Your task to perform on an android device: uninstall "Microsoft Outlook" Image 0: 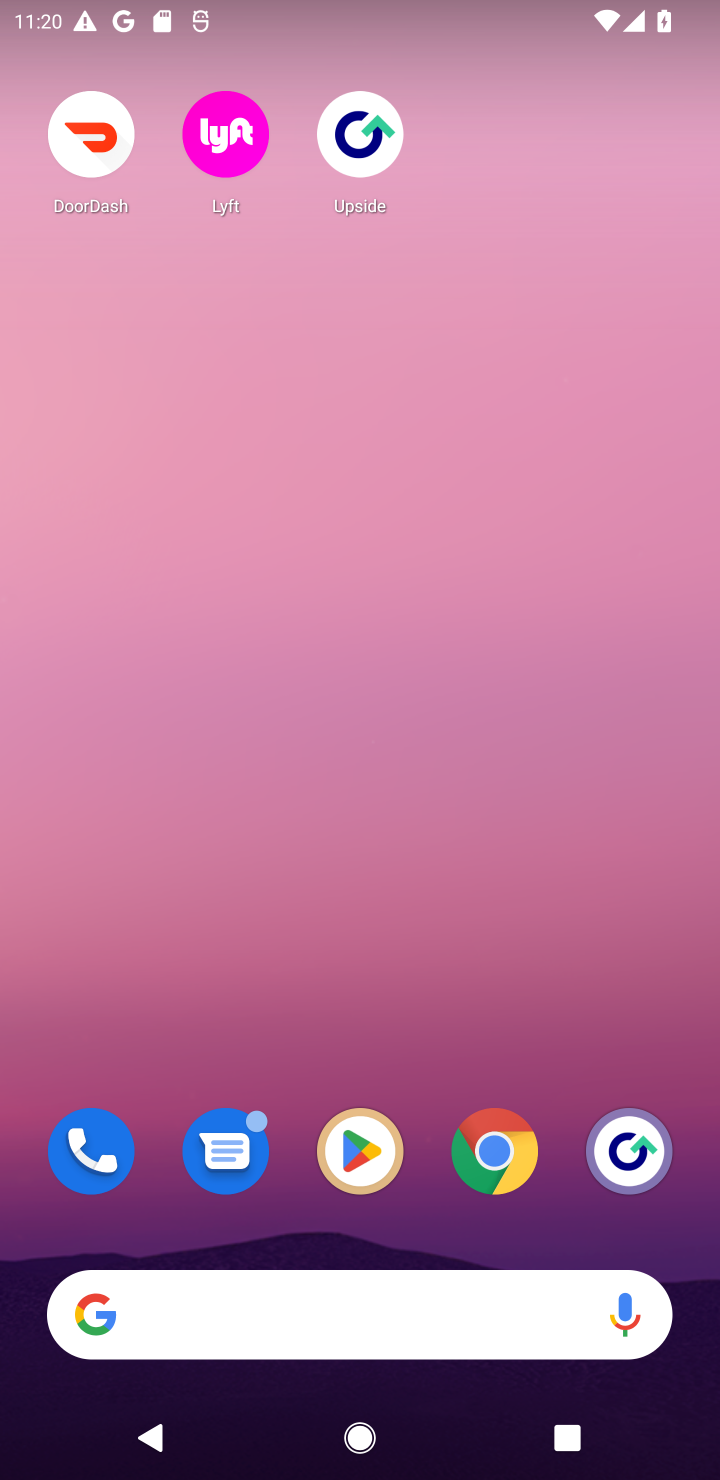
Step 0: click (350, 1159)
Your task to perform on an android device: uninstall "Microsoft Outlook" Image 1: 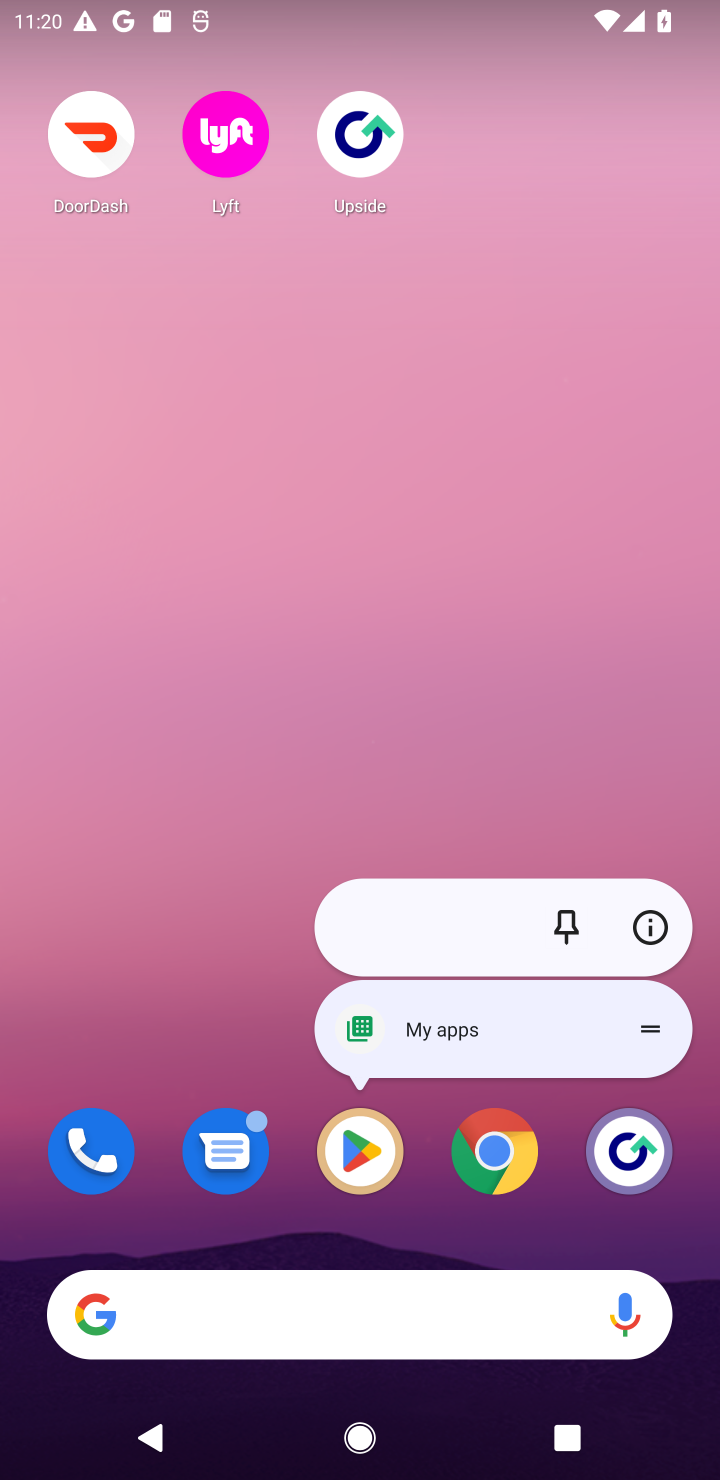
Step 1: click (339, 1152)
Your task to perform on an android device: uninstall "Microsoft Outlook" Image 2: 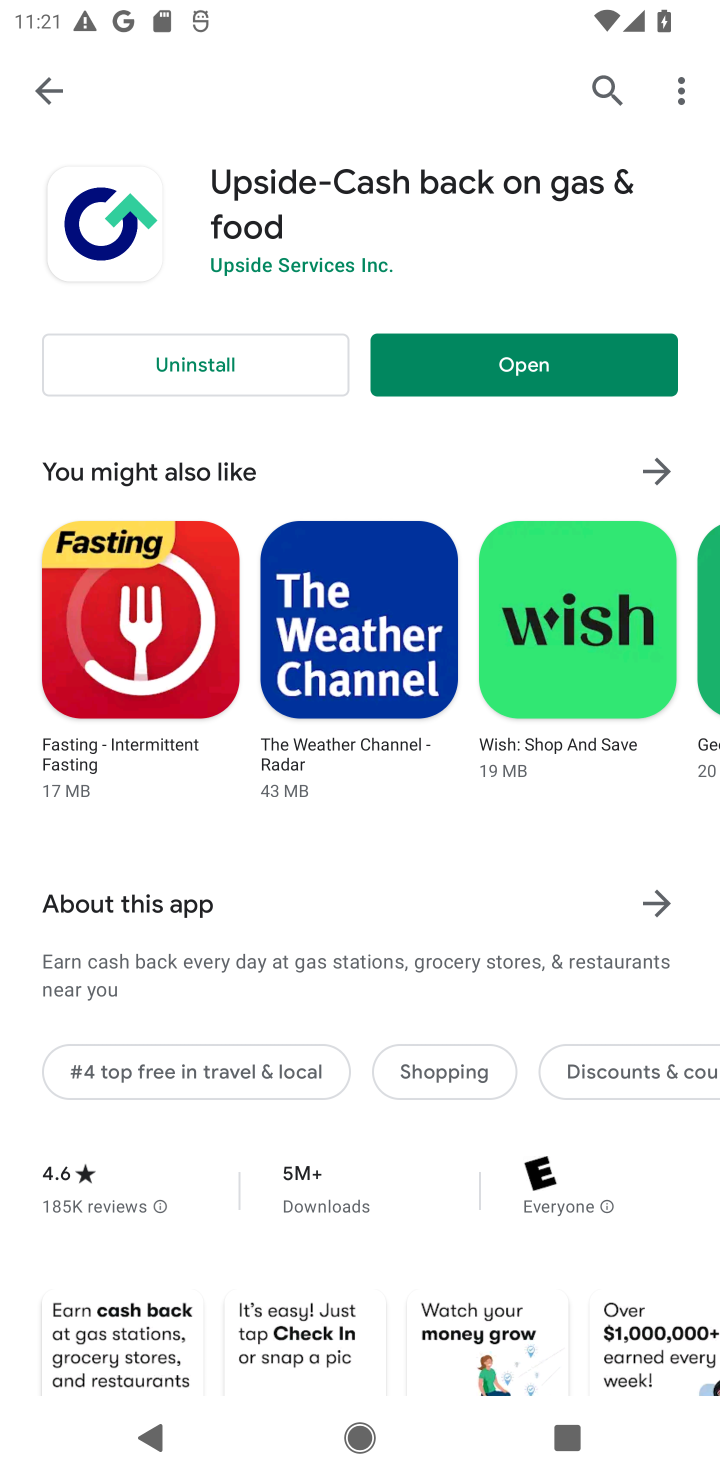
Step 2: click (604, 91)
Your task to perform on an android device: uninstall "Microsoft Outlook" Image 3: 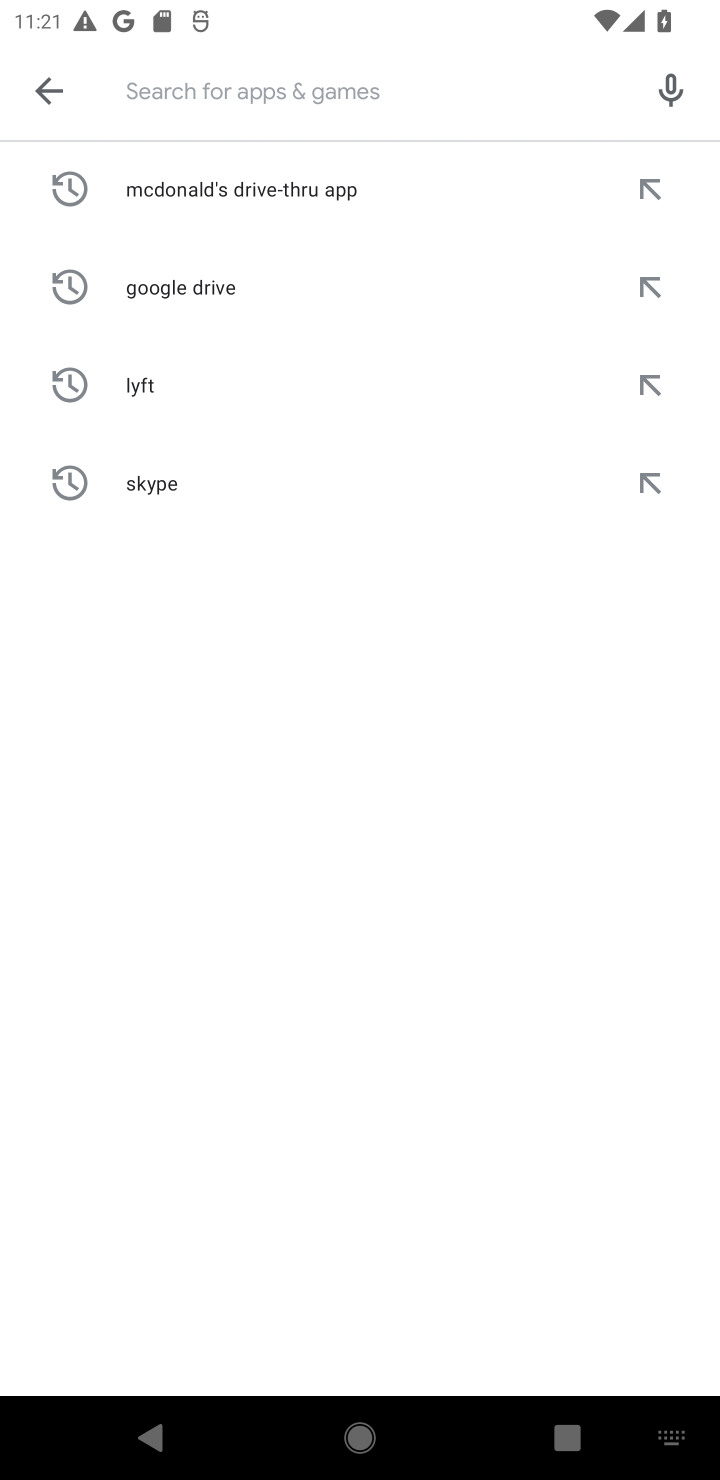
Step 3: type "Microsoft Outlook"
Your task to perform on an android device: uninstall "Microsoft Outlook" Image 4: 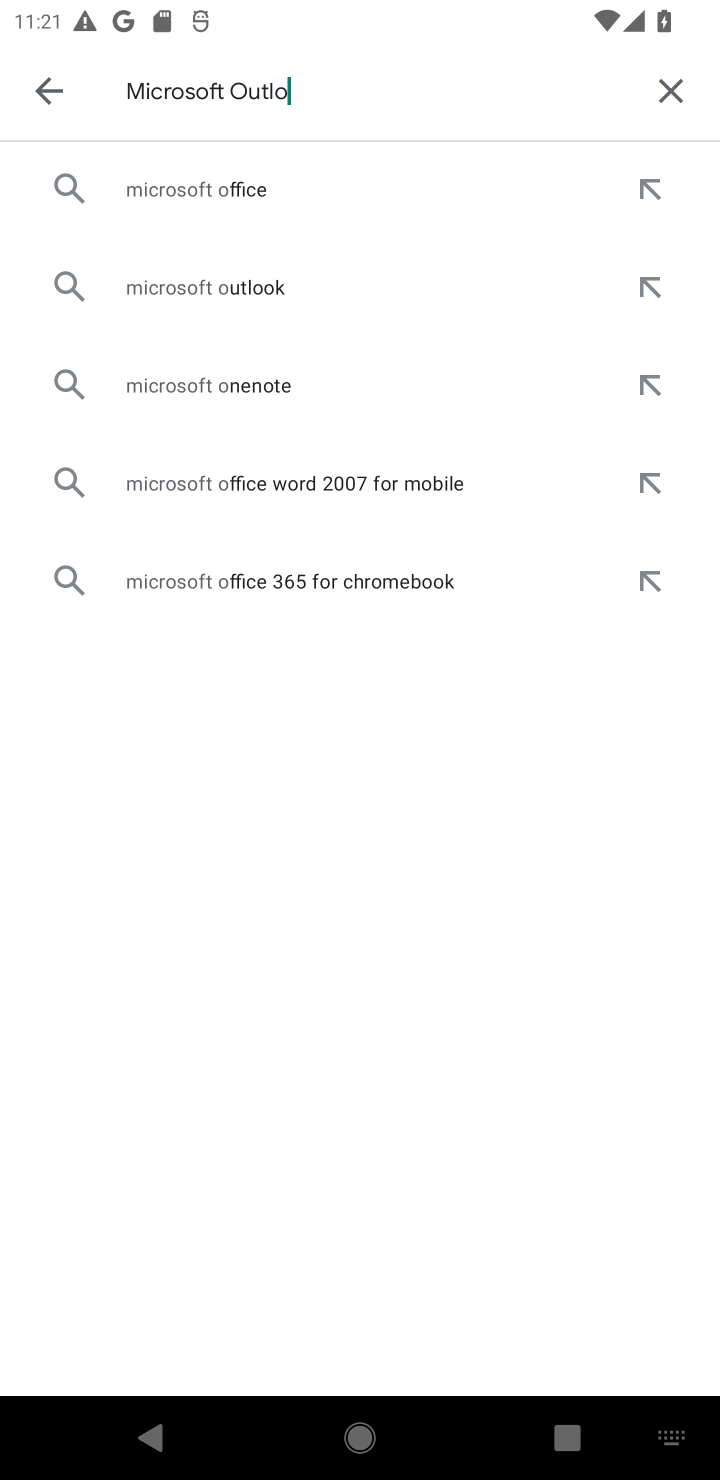
Step 4: type ""
Your task to perform on an android device: uninstall "Microsoft Outlook" Image 5: 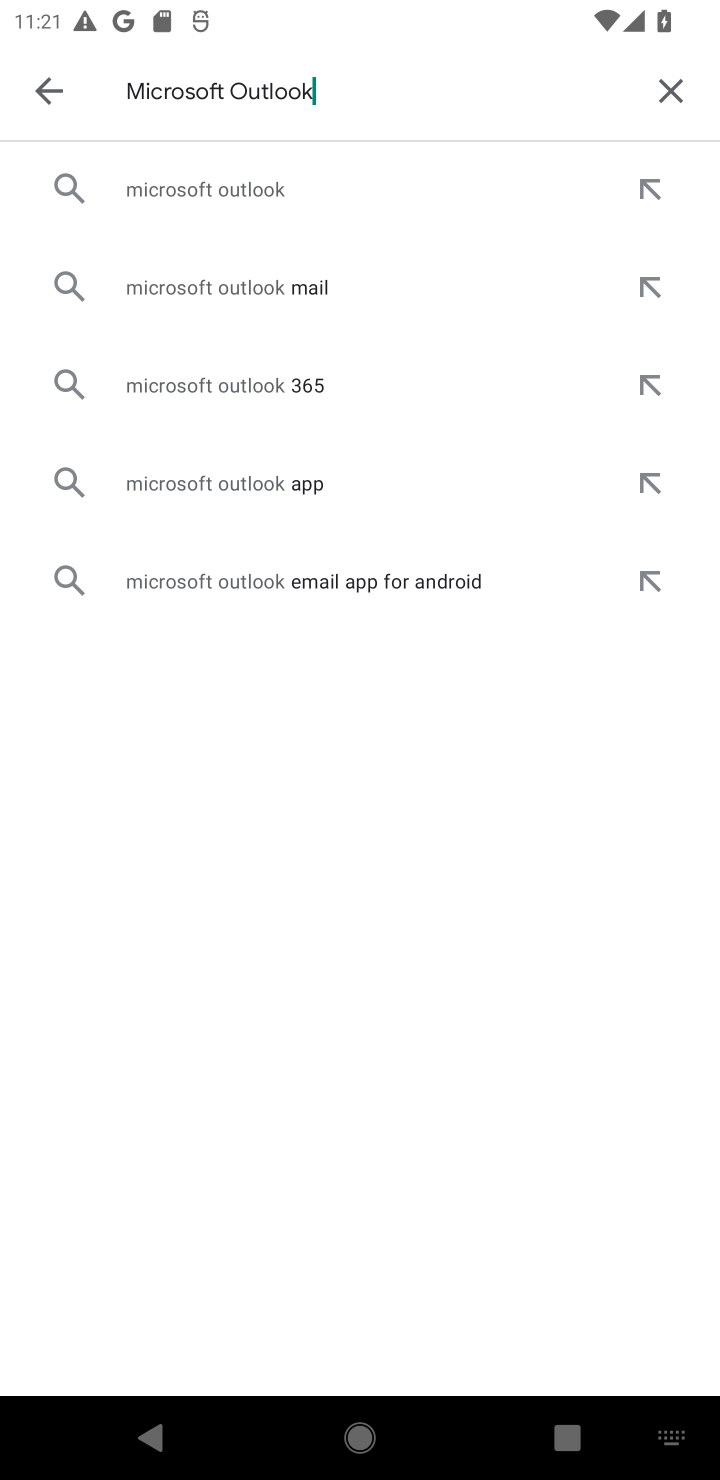
Step 5: click (286, 192)
Your task to perform on an android device: uninstall "Microsoft Outlook" Image 6: 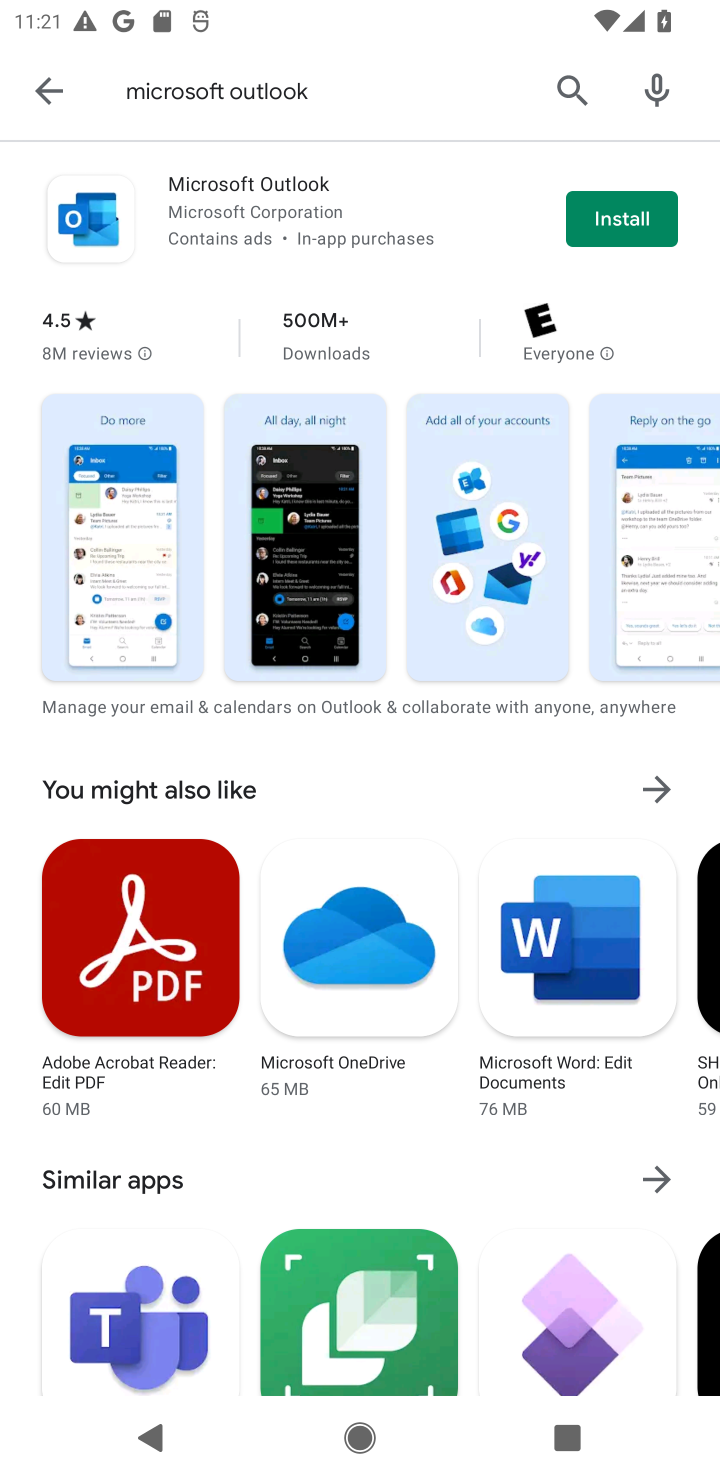
Step 6: click (289, 201)
Your task to perform on an android device: uninstall "Microsoft Outlook" Image 7: 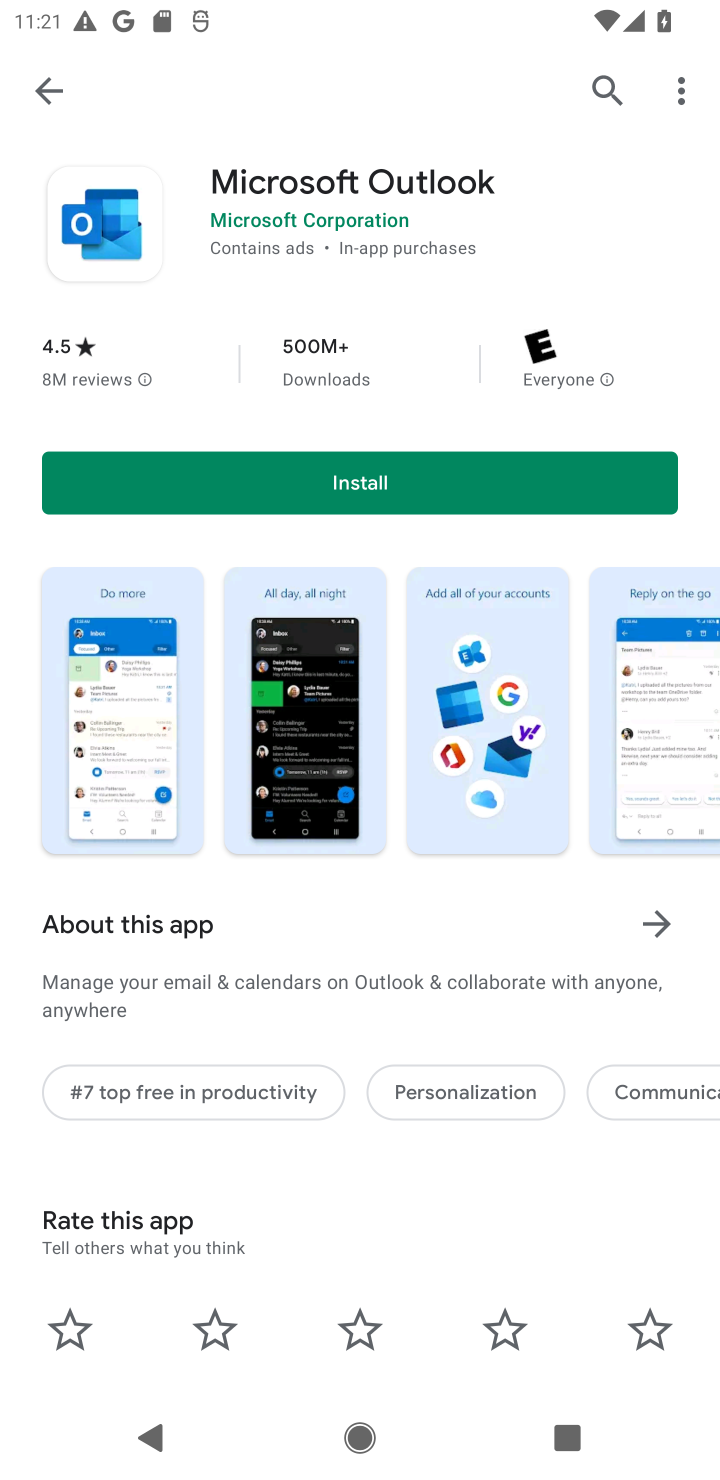
Step 7: task complete